Your task to perform on an android device: turn on showing notifications on the lock screen Image 0: 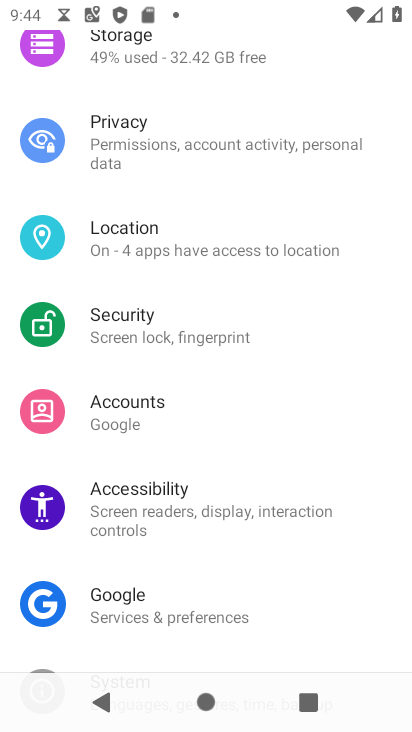
Step 0: press home button
Your task to perform on an android device: turn on showing notifications on the lock screen Image 1: 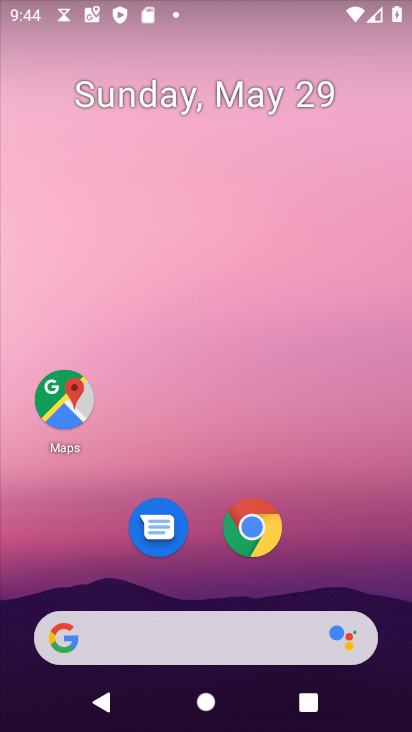
Step 1: drag from (180, 638) to (276, 244)
Your task to perform on an android device: turn on showing notifications on the lock screen Image 2: 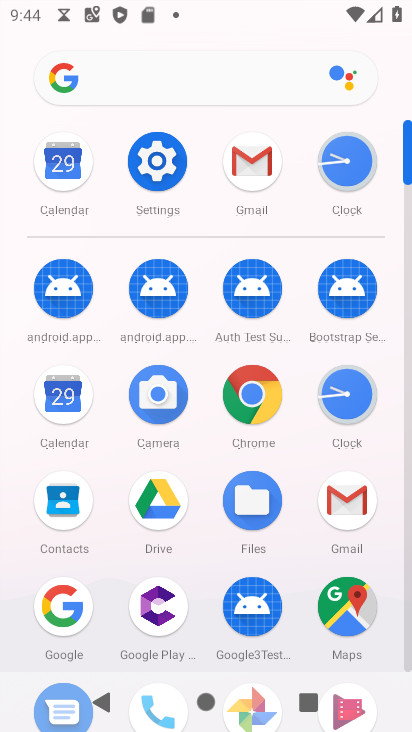
Step 2: click (159, 170)
Your task to perform on an android device: turn on showing notifications on the lock screen Image 3: 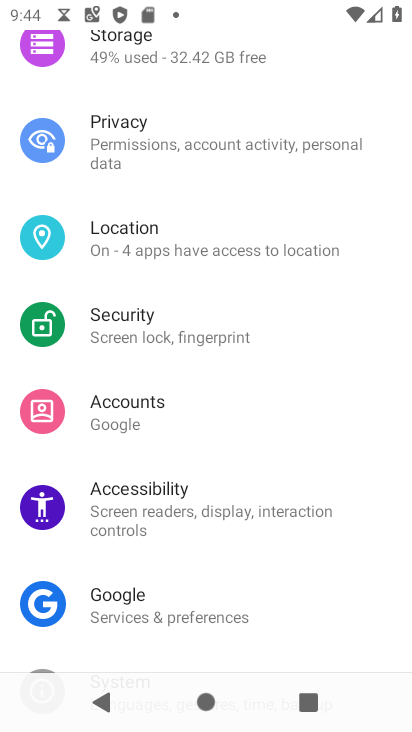
Step 3: drag from (304, 101) to (259, 621)
Your task to perform on an android device: turn on showing notifications on the lock screen Image 4: 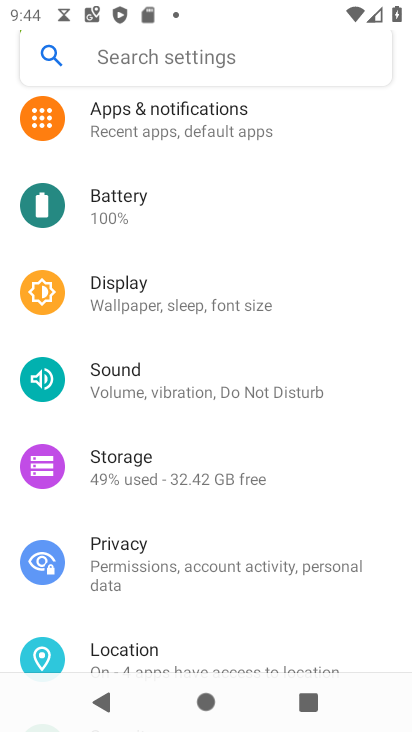
Step 4: drag from (280, 209) to (266, 504)
Your task to perform on an android device: turn on showing notifications on the lock screen Image 5: 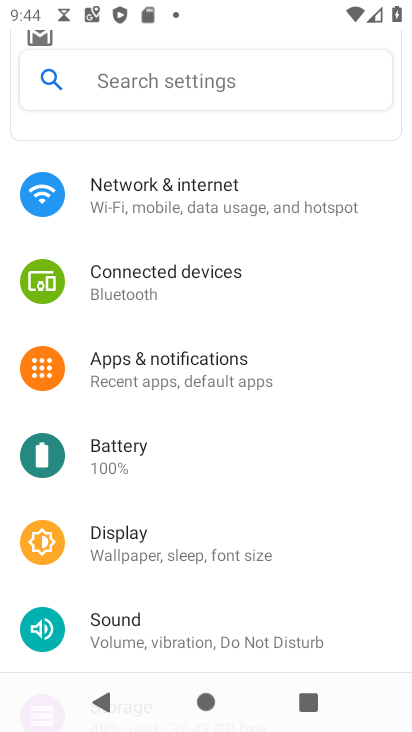
Step 5: click (197, 360)
Your task to perform on an android device: turn on showing notifications on the lock screen Image 6: 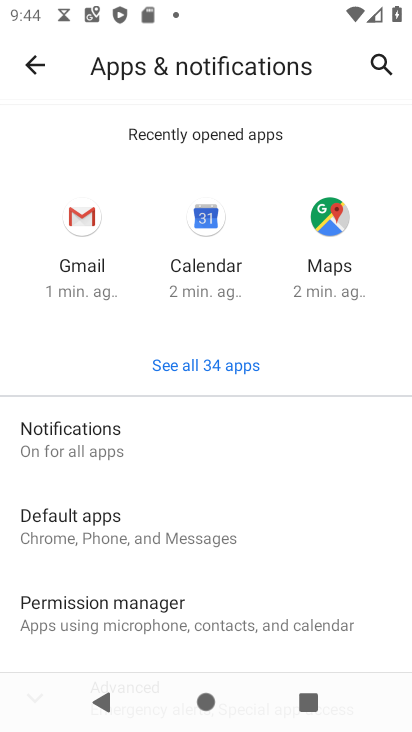
Step 6: click (82, 436)
Your task to perform on an android device: turn on showing notifications on the lock screen Image 7: 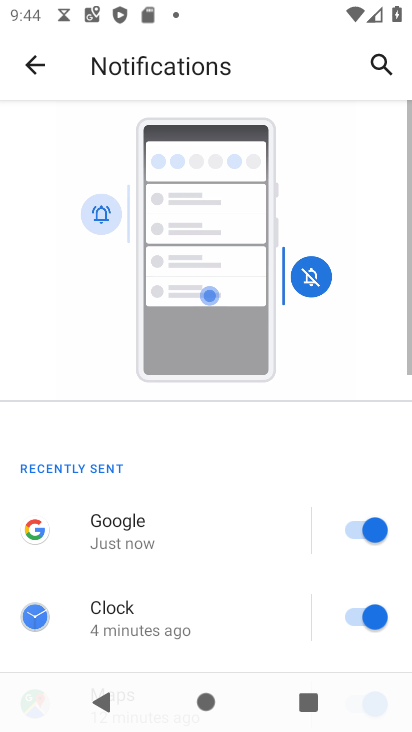
Step 7: drag from (208, 578) to (376, 37)
Your task to perform on an android device: turn on showing notifications on the lock screen Image 8: 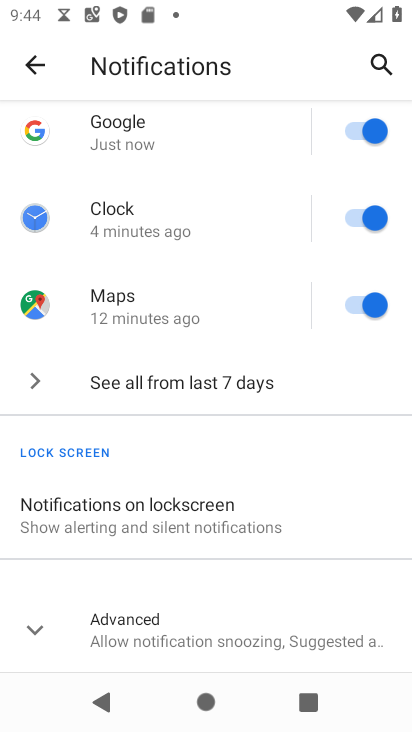
Step 8: click (154, 523)
Your task to perform on an android device: turn on showing notifications on the lock screen Image 9: 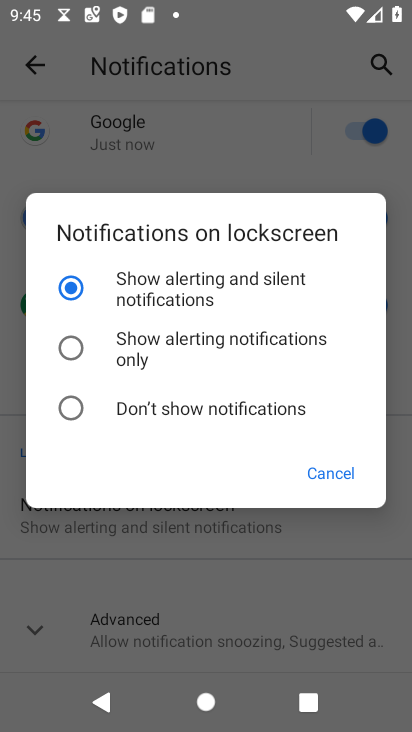
Step 9: task complete